Your task to perform on an android device: find photos in the google photos app Image 0: 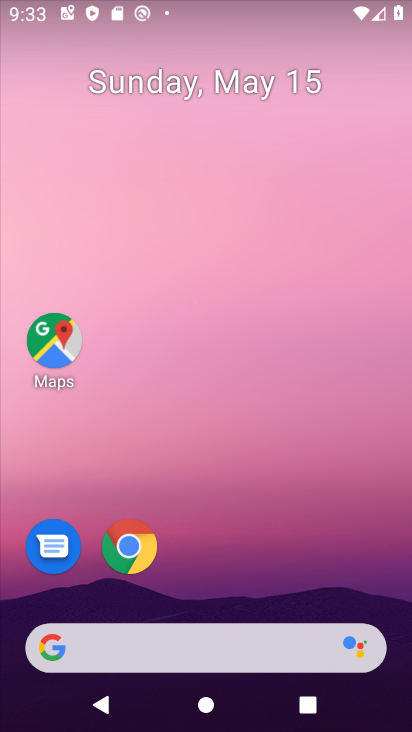
Step 0: drag from (310, 518) to (197, 52)
Your task to perform on an android device: find photos in the google photos app Image 1: 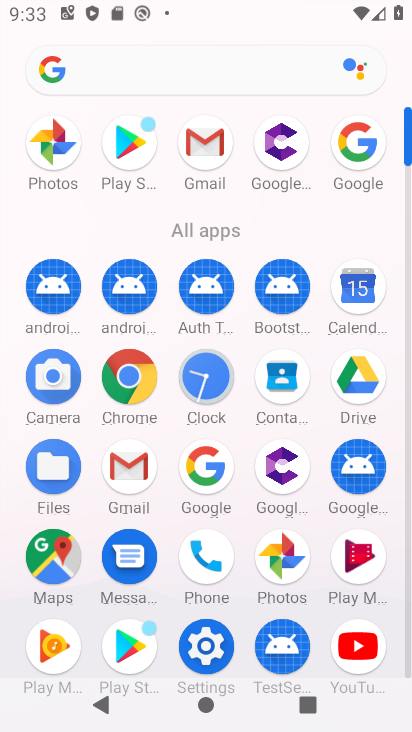
Step 1: click (279, 548)
Your task to perform on an android device: find photos in the google photos app Image 2: 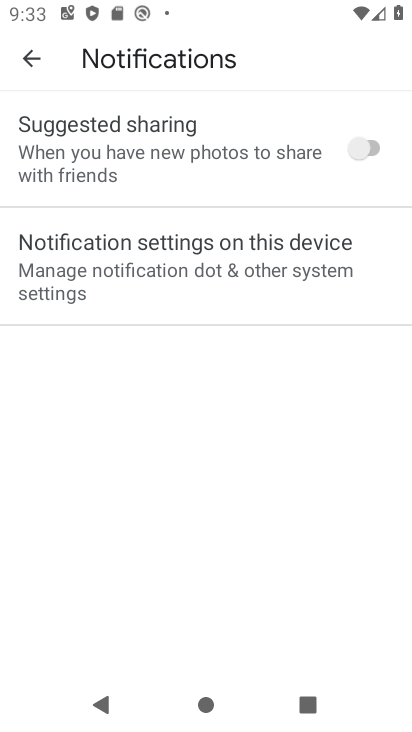
Step 2: click (25, 57)
Your task to perform on an android device: find photos in the google photos app Image 3: 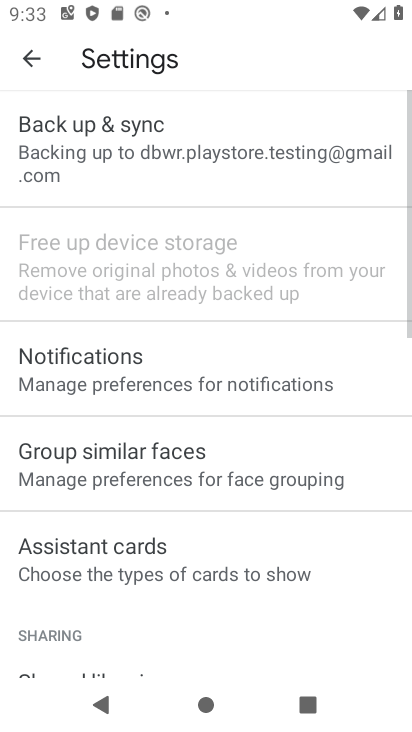
Step 3: click (30, 54)
Your task to perform on an android device: find photos in the google photos app Image 4: 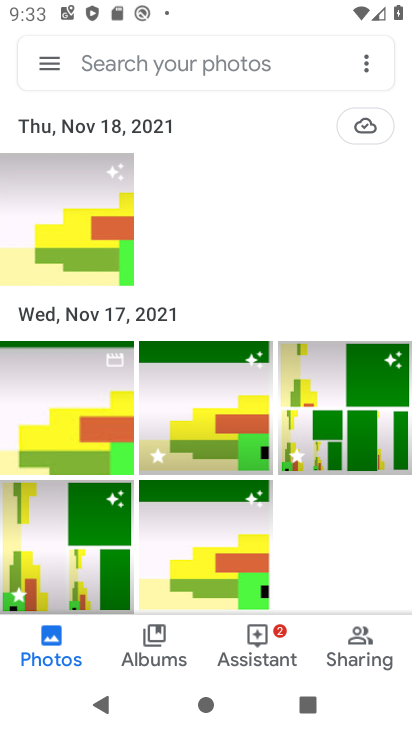
Step 4: task complete